Your task to perform on an android device: Open Chrome and go to the settings page Image 0: 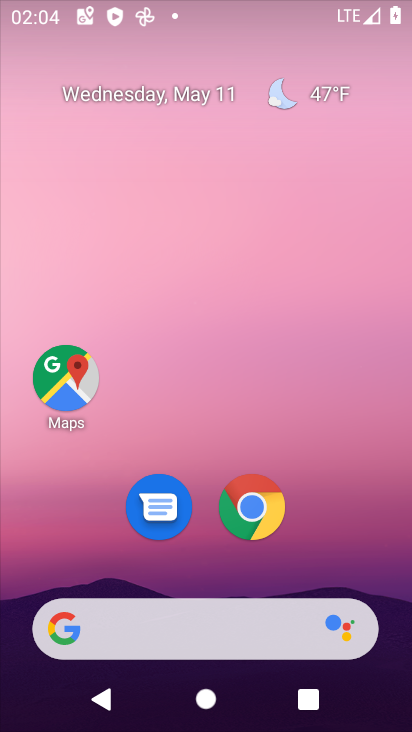
Step 0: drag from (320, 568) to (197, 36)
Your task to perform on an android device: Open Chrome and go to the settings page Image 1: 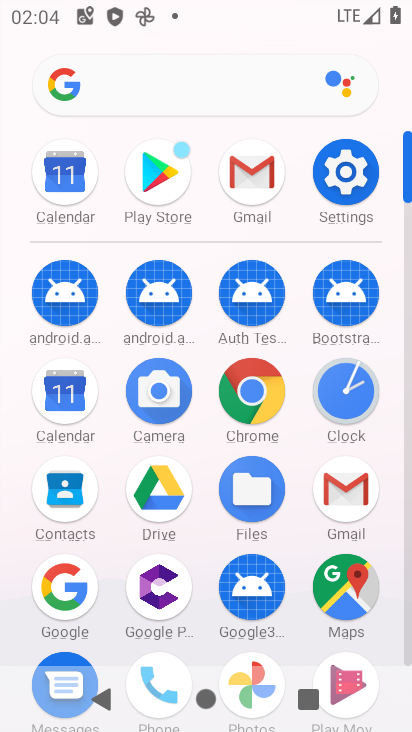
Step 1: click (255, 368)
Your task to perform on an android device: Open Chrome and go to the settings page Image 2: 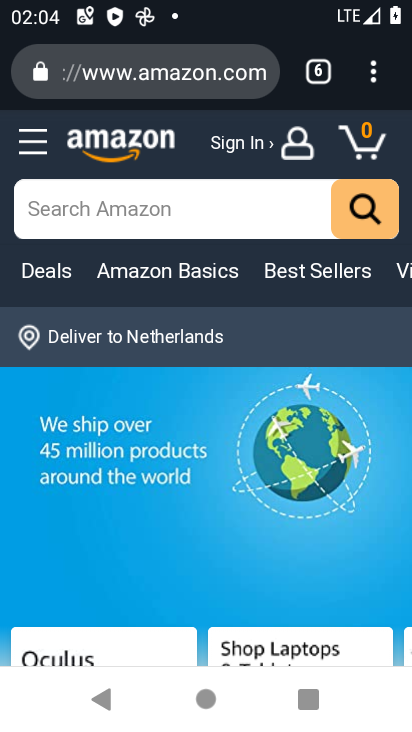
Step 2: click (375, 80)
Your task to perform on an android device: Open Chrome and go to the settings page Image 3: 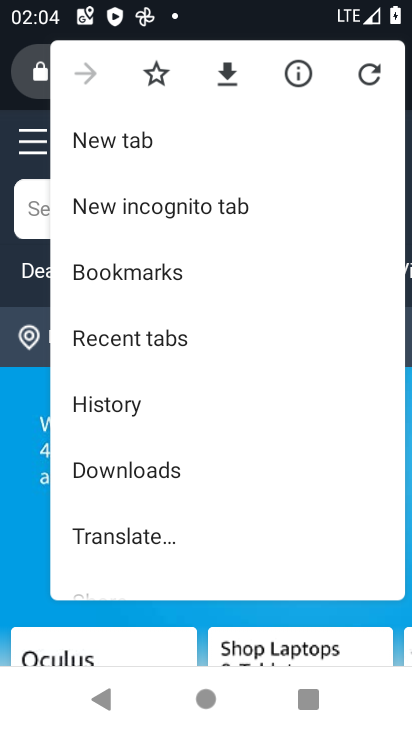
Step 3: drag from (188, 471) to (129, 110)
Your task to perform on an android device: Open Chrome and go to the settings page Image 4: 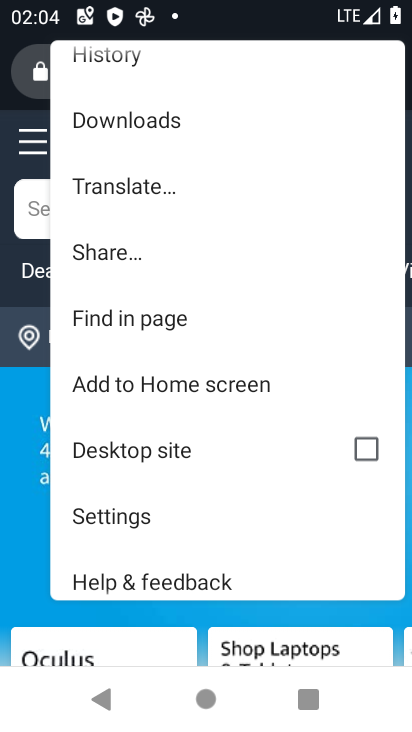
Step 4: click (136, 507)
Your task to perform on an android device: Open Chrome and go to the settings page Image 5: 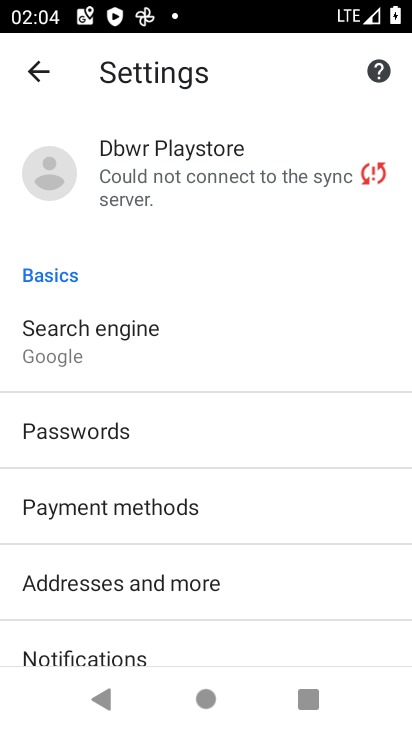
Step 5: task complete